Your task to perform on an android device: clear all cookies in the chrome app Image 0: 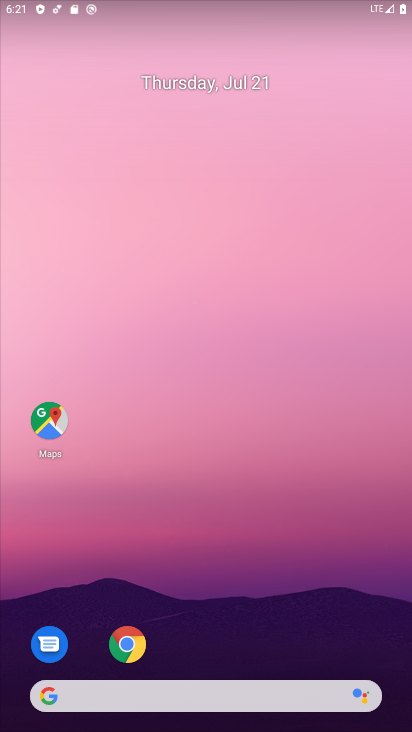
Step 0: click (130, 644)
Your task to perform on an android device: clear all cookies in the chrome app Image 1: 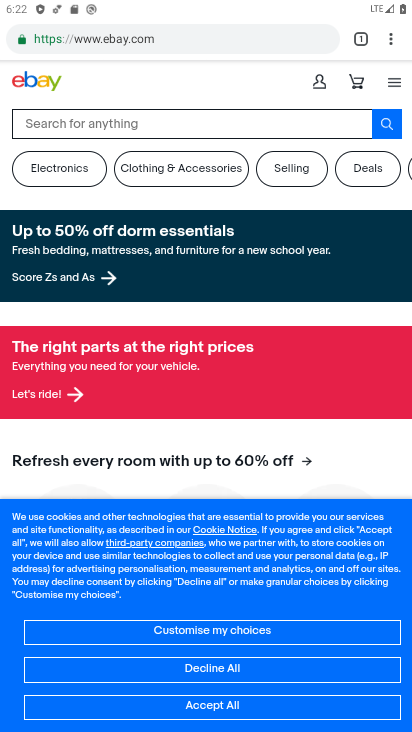
Step 1: click (398, 30)
Your task to perform on an android device: clear all cookies in the chrome app Image 2: 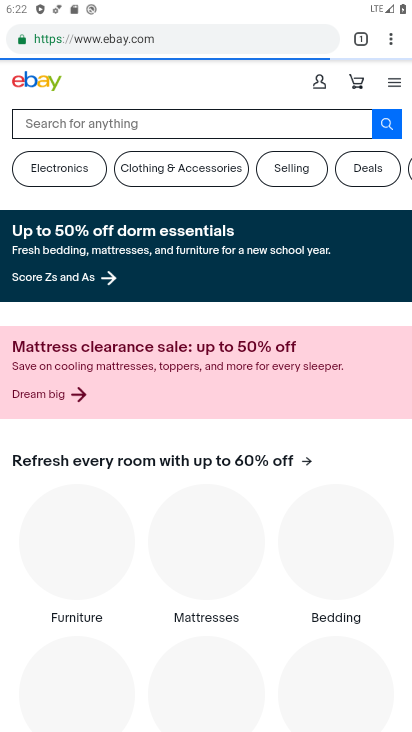
Step 2: click (397, 32)
Your task to perform on an android device: clear all cookies in the chrome app Image 3: 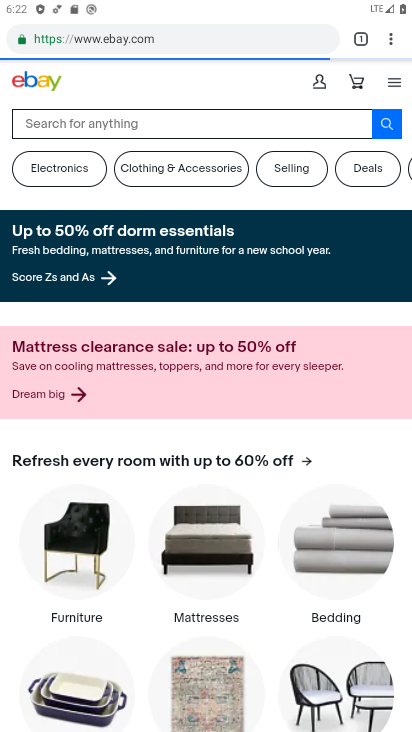
Step 3: click (394, 31)
Your task to perform on an android device: clear all cookies in the chrome app Image 4: 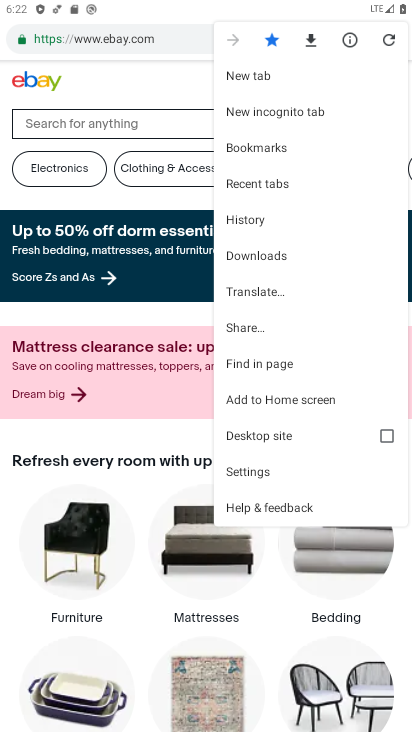
Step 4: click (256, 220)
Your task to perform on an android device: clear all cookies in the chrome app Image 5: 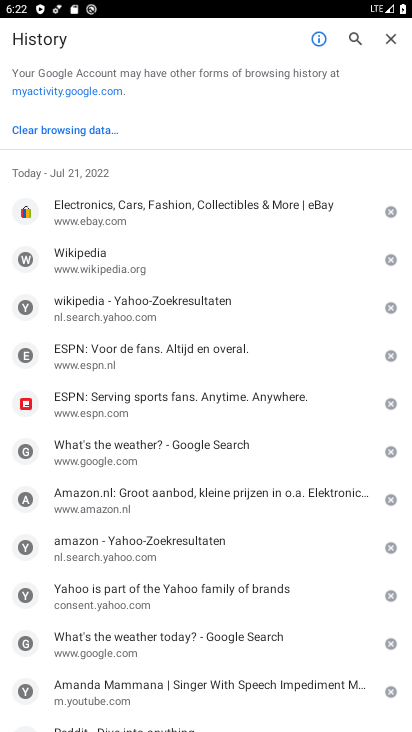
Step 5: click (67, 132)
Your task to perform on an android device: clear all cookies in the chrome app Image 6: 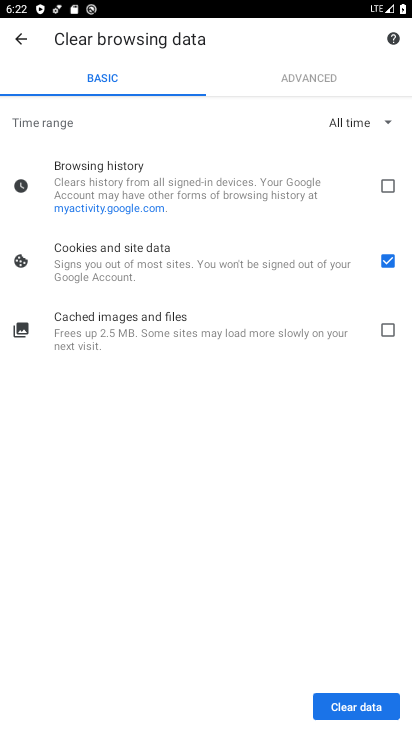
Step 6: click (347, 713)
Your task to perform on an android device: clear all cookies in the chrome app Image 7: 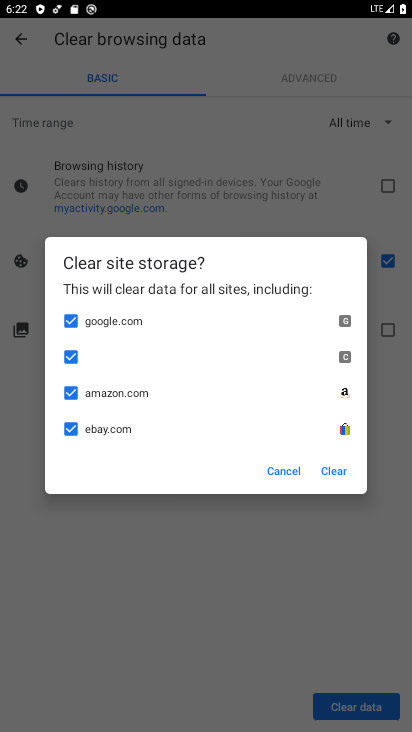
Step 7: click (337, 469)
Your task to perform on an android device: clear all cookies in the chrome app Image 8: 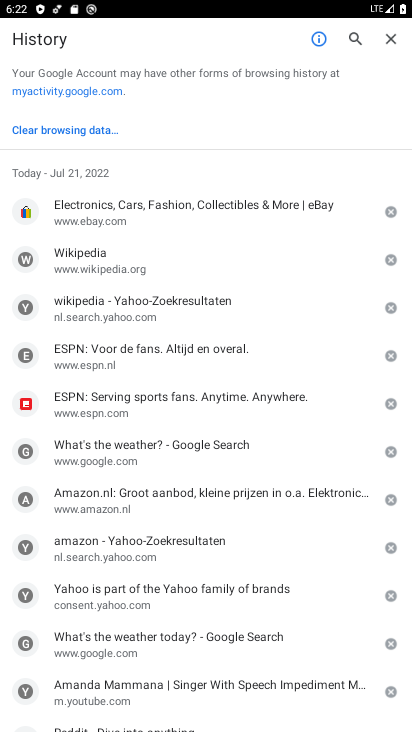
Step 8: task complete